Your task to perform on an android device: Open calendar and show me the fourth week of next month Image 0: 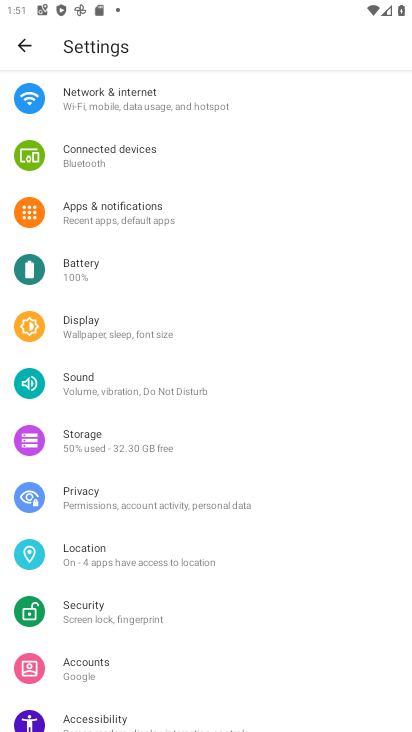
Step 0: press home button
Your task to perform on an android device: Open calendar and show me the fourth week of next month Image 1: 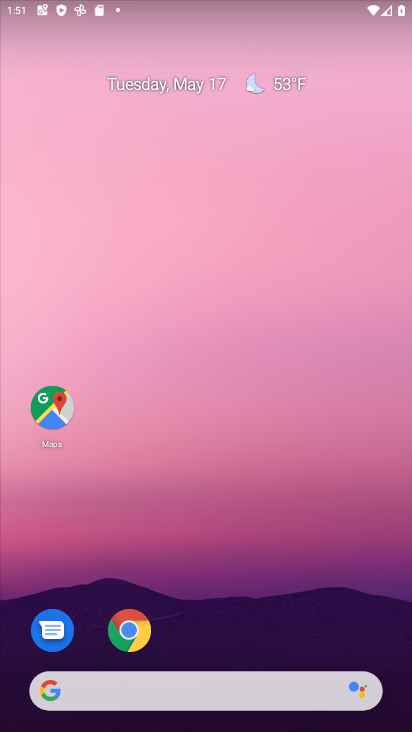
Step 1: drag from (207, 591) to (223, 253)
Your task to perform on an android device: Open calendar and show me the fourth week of next month Image 2: 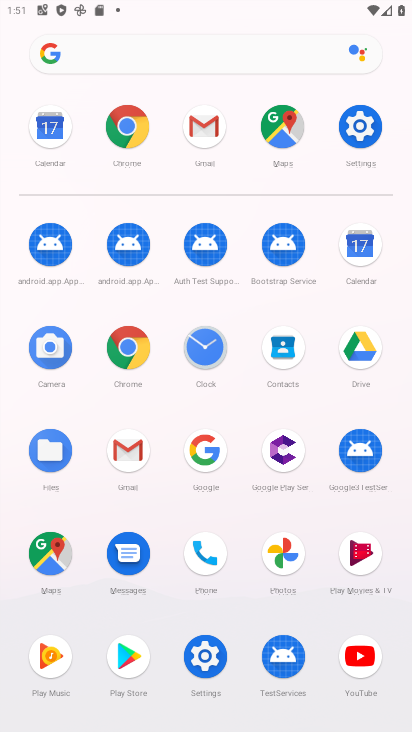
Step 2: drag from (264, 474) to (283, 306)
Your task to perform on an android device: Open calendar and show me the fourth week of next month Image 3: 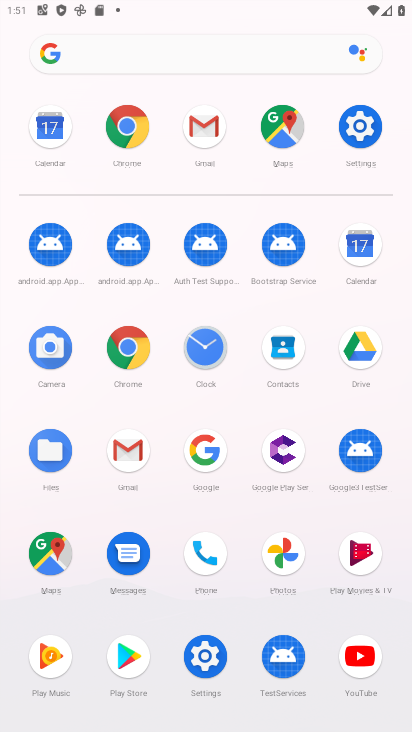
Step 3: click (364, 250)
Your task to perform on an android device: Open calendar and show me the fourth week of next month Image 4: 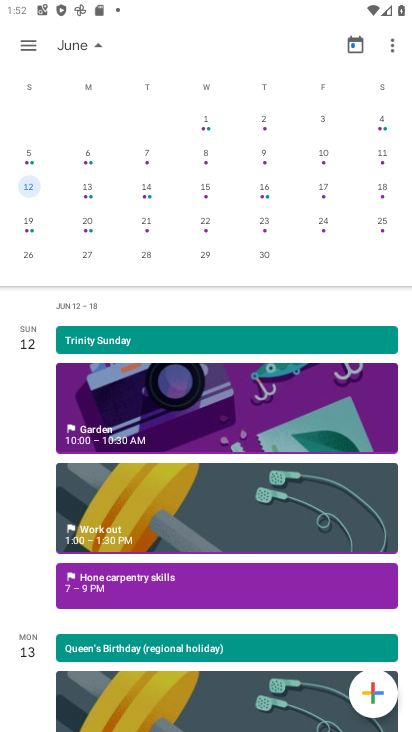
Step 4: click (32, 260)
Your task to perform on an android device: Open calendar and show me the fourth week of next month Image 5: 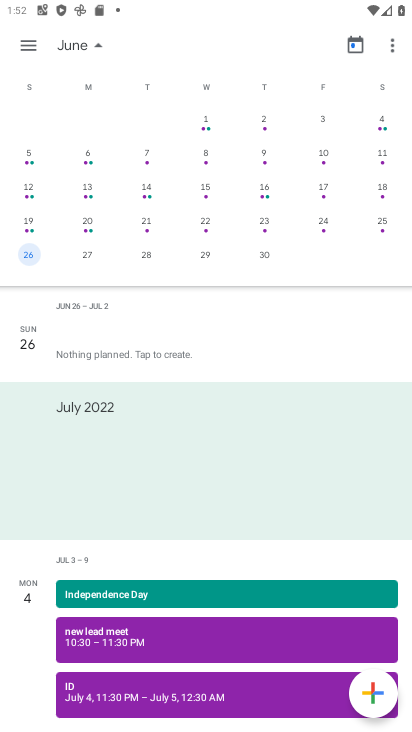
Step 5: task complete